Your task to perform on an android device: What's on my calendar tomorrow? Image 0: 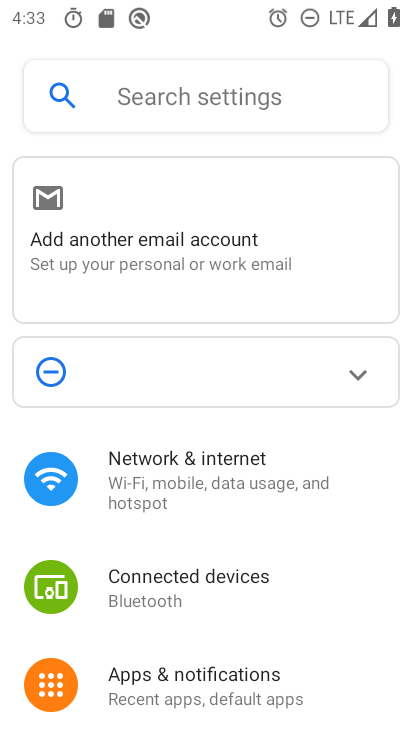
Step 0: press home button
Your task to perform on an android device: What's on my calendar tomorrow? Image 1: 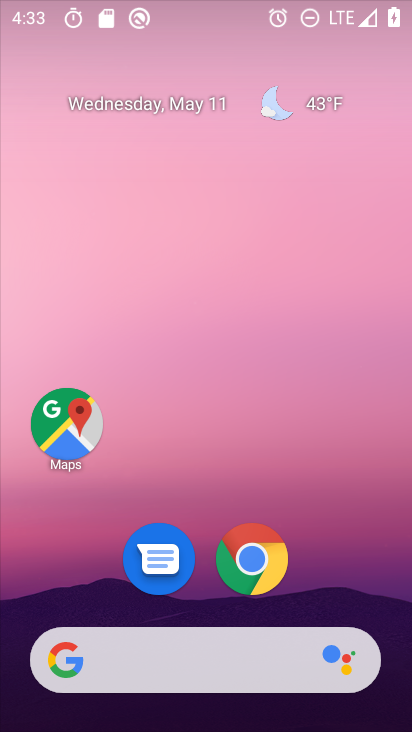
Step 1: click (141, 100)
Your task to perform on an android device: What's on my calendar tomorrow? Image 2: 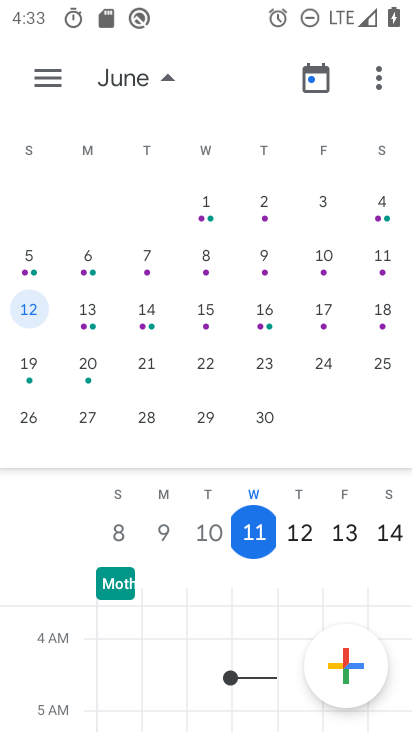
Step 2: click (51, 85)
Your task to perform on an android device: What's on my calendar tomorrow? Image 3: 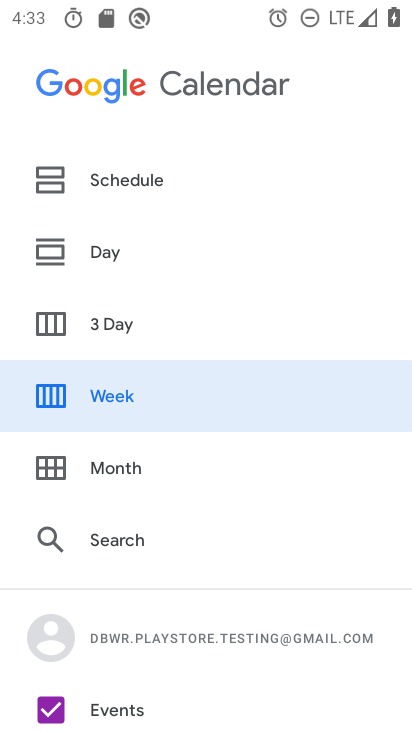
Step 3: click (81, 250)
Your task to perform on an android device: What's on my calendar tomorrow? Image 4: 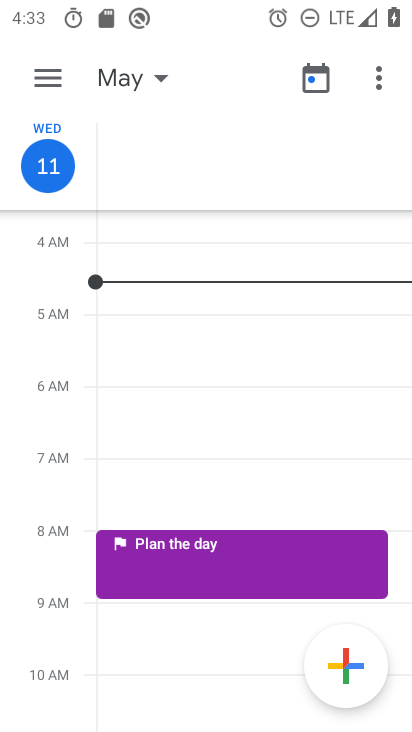
Step 4: drag from (52, 477) to (31, 135)
Your task to perform on an android device: What's on my calendar tomorrow? Image 5: 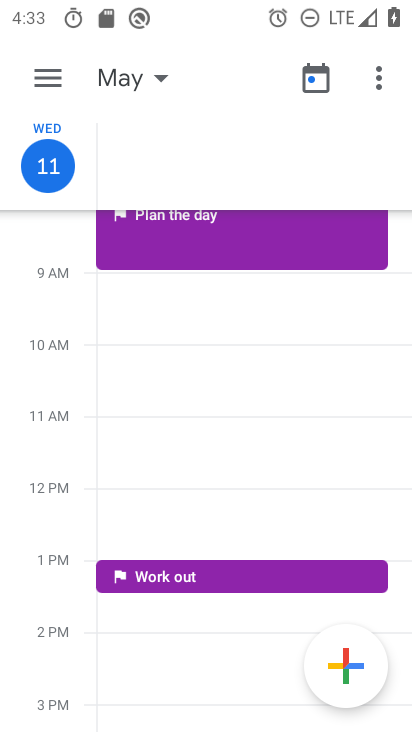
Step 5: drag from (57, 523) to (51, 254)
Your task to perform on an android device: What's on my calendar tomorrow? Image 6: 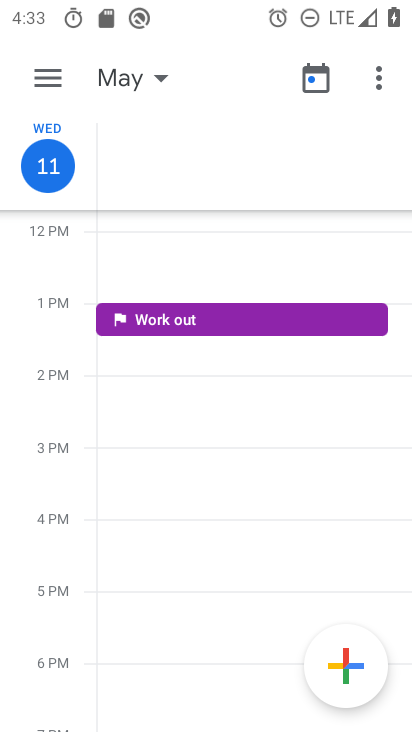
Step 6: drag from (44, 638) to (50, 192)
Your task to perform on an android device: What's on my calendar tomorrow? Image 7: 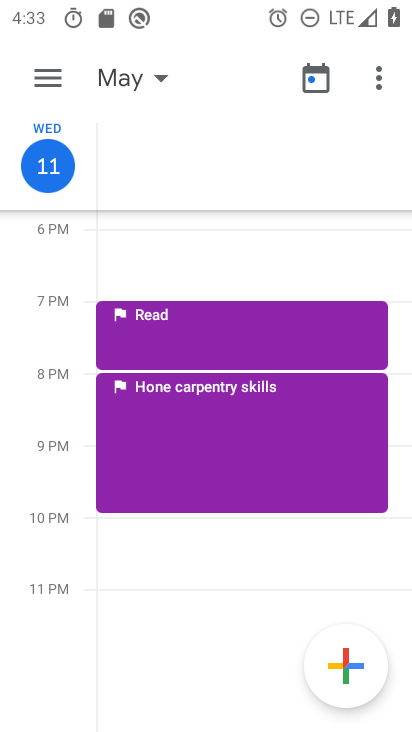
Step 7: drag from (45, 636) to (65, 207)
Your task to perform on an android device: What's on my calendar tomorrow? Image 8: 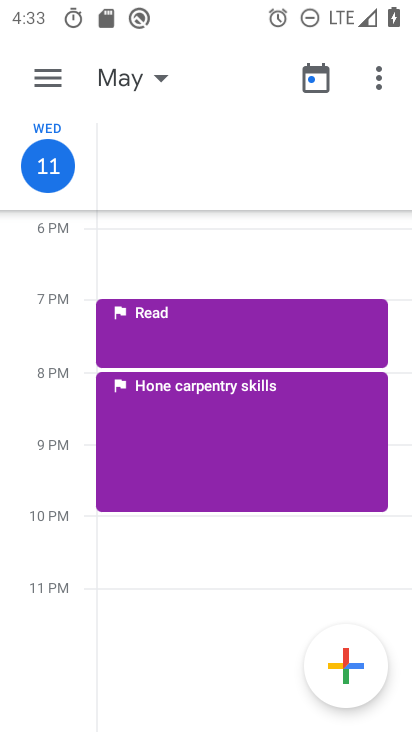
Step 8: click (163, 73)
Your task to perform on an android device: What's on my calendar tomorrow? Image 9: 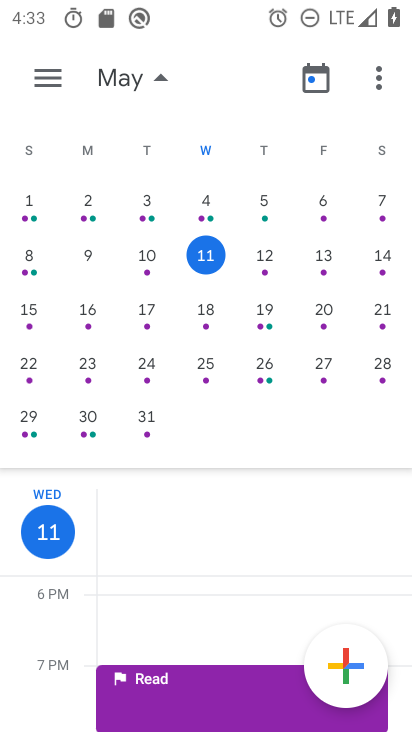
Step 9: click (261, 251)
Your task to perform on an android device: What's on my calendar tomorrow? Image 10: 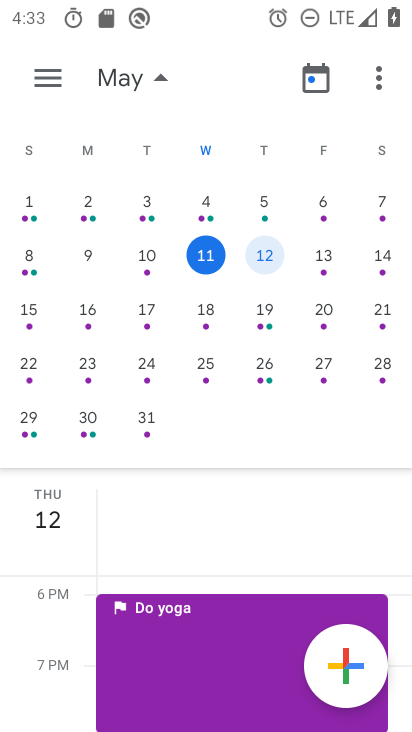
Step 10: task complete